Your task to perform on an android device: visit the assistant section in the google photos Image 0: 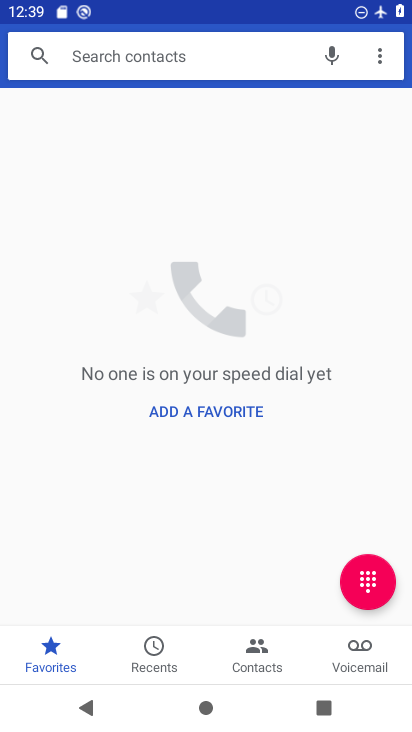
Step 0: press home button
Your task to perform on an android device: visit the assistant section in the google photos Image 1: 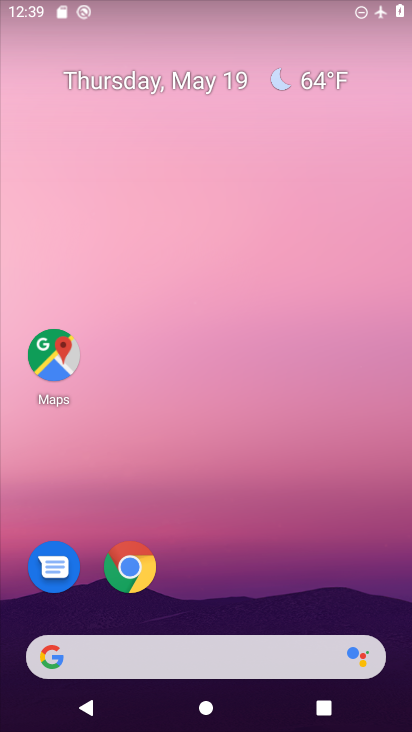
Step 1: drag from (217, 565) to (266, 153)
Your task to perform on an android device: visit the assistant section in the google photos Image 2: 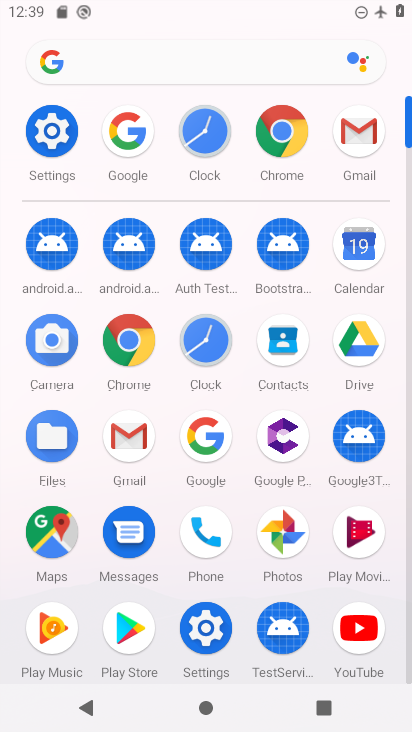
Step 2: click (287, 545)
Your task to perform on an android device: visit the assistant section in the google photos Image 3: 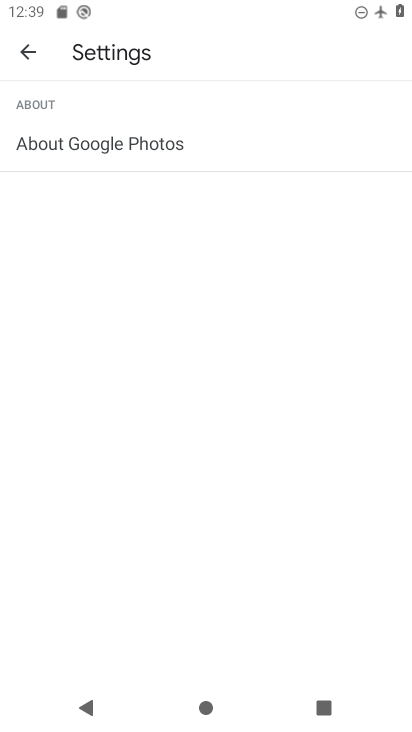
Step 3: press back button
Your task to perform on an android device: visit the assistant section in the google photos Image 4: 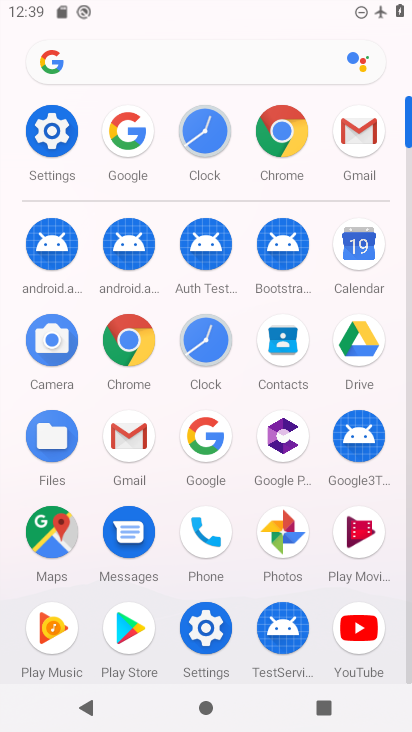
Step 4: click (285, 532)
Your task to perform on an android device: visit the assistant section in the google photos Image 5: 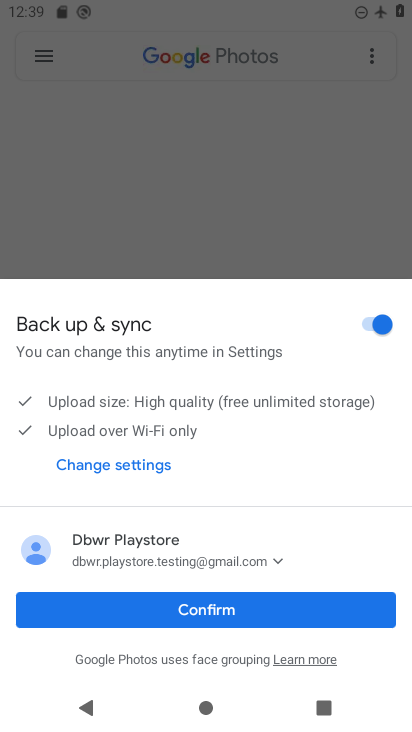
Step 5: click (200, 593)
Your task to perform on an android device: visit the assistant section in the google photos Image 6: 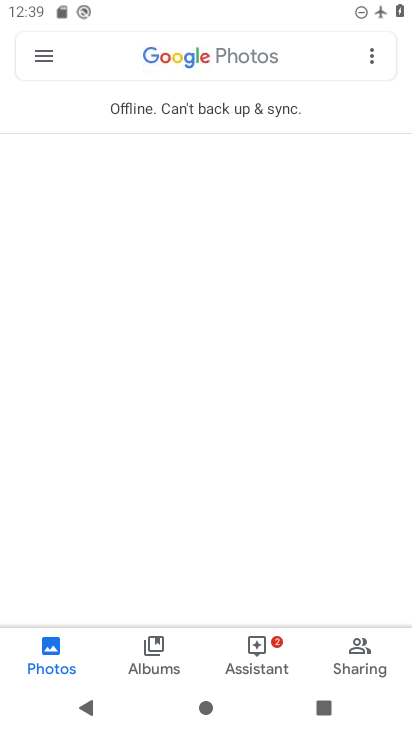
Step 6: click (265, 667)
Your task to perform on an android device: visit the assistant section in the google photos Image 7: 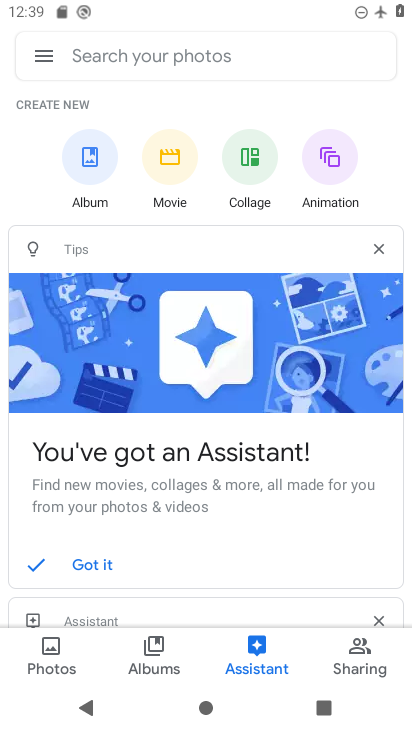
Step 7: task complete